Your task to perform on an android device: change alarm snooze length Image 0: 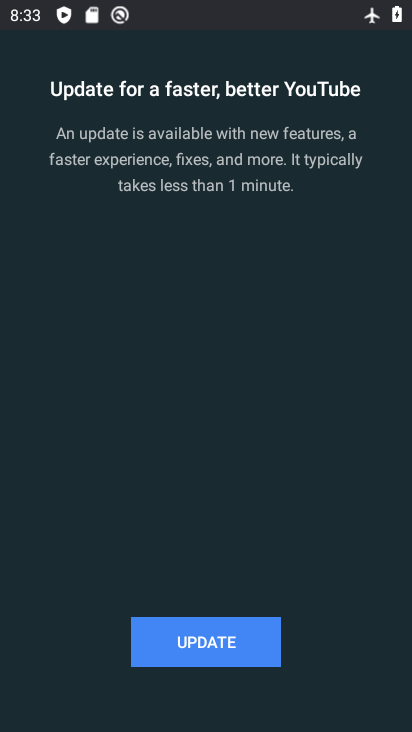
Step 0: press back button
Your task to perform on an android device: change alarm snooze length Image 1: 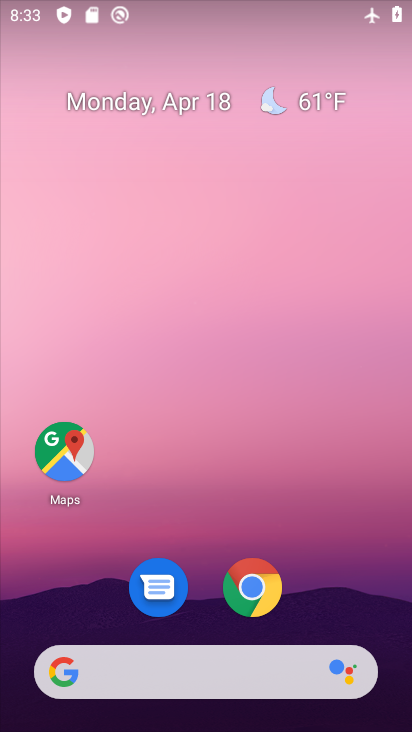
Step 1: drag from (204, 727) to (206, 73)
Your task to perform on an android device: change alarm snooze length Image 2: 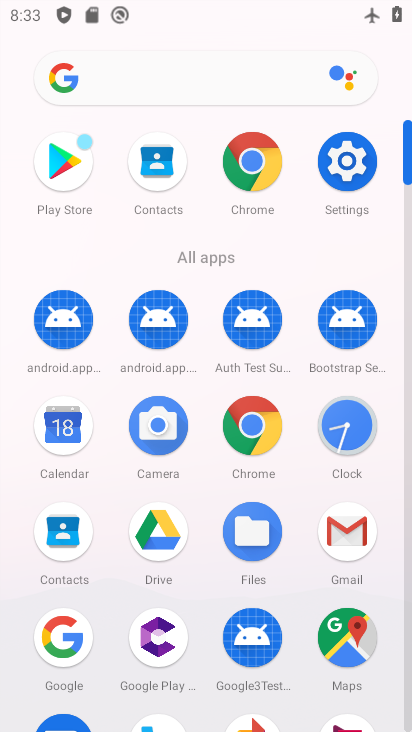
Step 2: click (352, 428)
Your task to perform on an android device: change alarm snooze length Image 3: 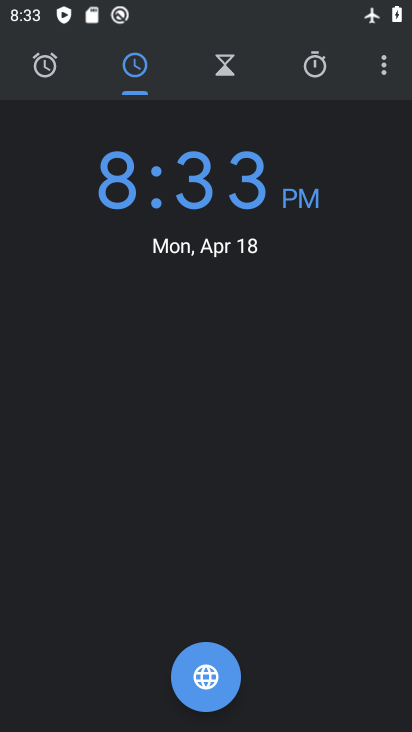
Step 3: click (383, 71)
Your task to perform on an android device: change alarm snooze length Image 4: 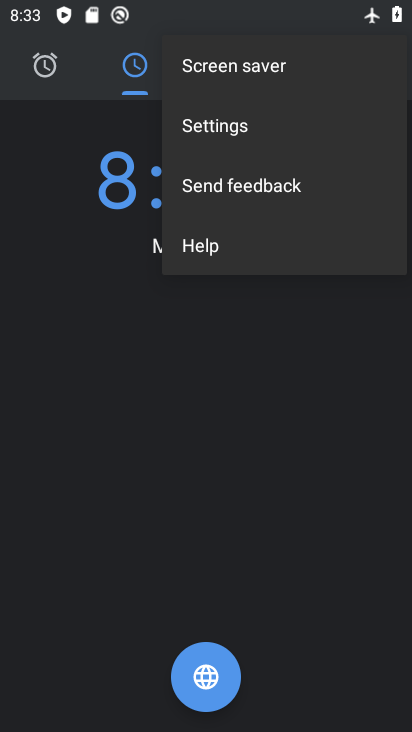
Step 4: click (214, 127)
Your task to perform on an android device: change alarm snooze length Image 5: 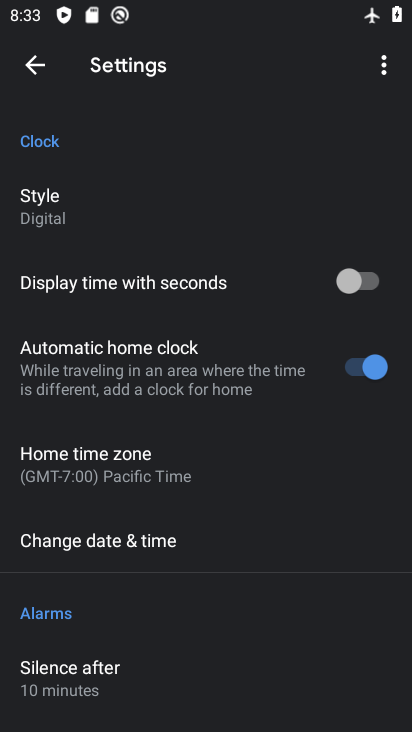
Step 5: drag from (187, 656) to (231, 193)
Your task to perform on an android device: change alarm snooze length Image 6: 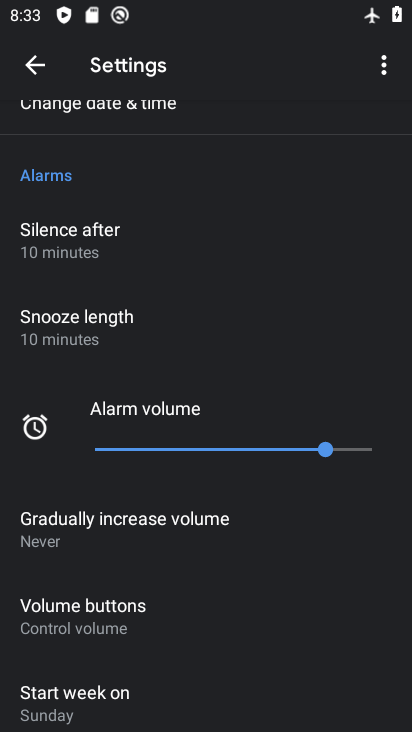
Step 6: click (62, 322)
Your task to perform on an android device: change alarm snooze length Image 7: 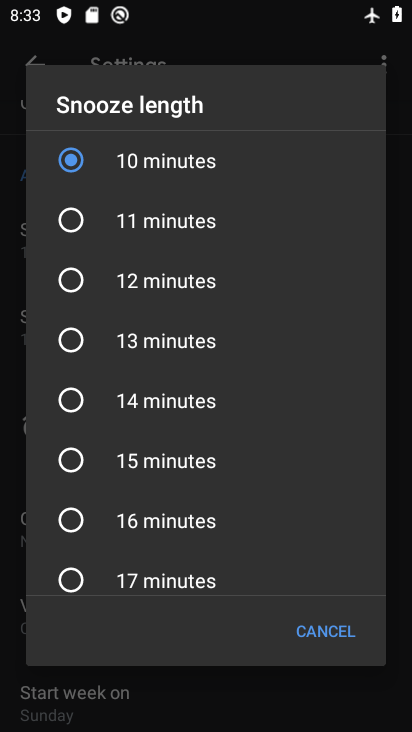
Step 7: click (69, 455)
Your task to perform on an android device: change alarm snooze length Image 8: 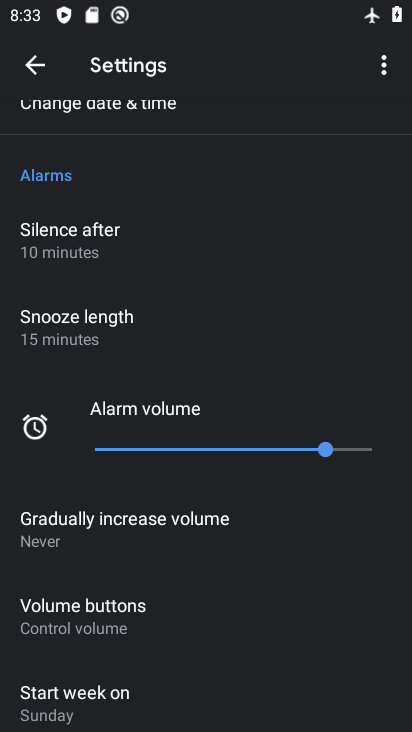
Step 8: task complete